Your task to perform on an android device: turn on notifications settings in the gmail app Image 0: 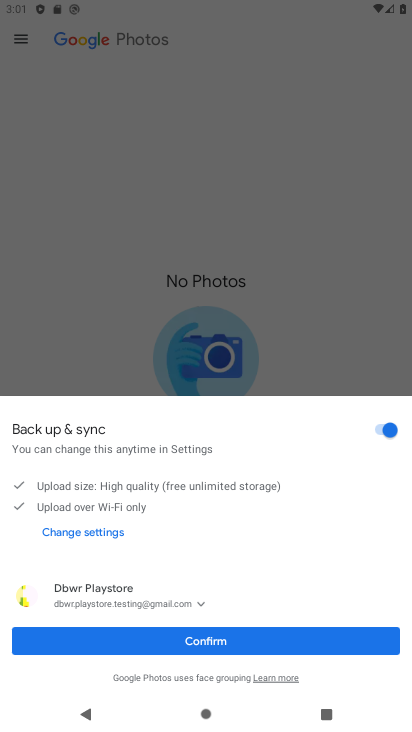
Step 0: drag from (177, 541) to (183, 253)
Your task to perform on an android device: turn on notifications settings in the gmail app Image 1: 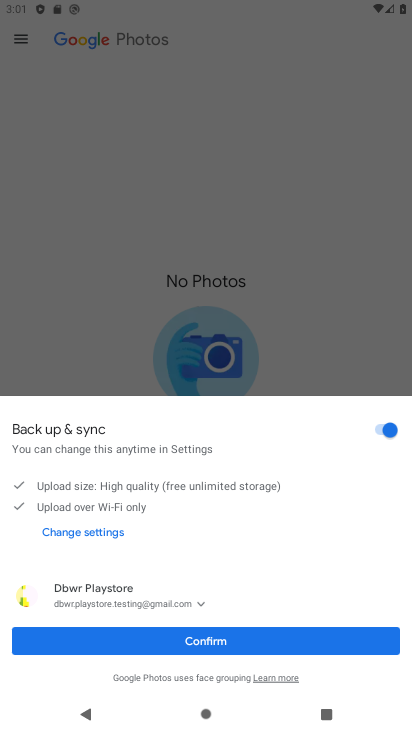
Step 1: click (211, 646)
Your task to perform on an android device: turn on notifications settings in the gmail app Image 2: 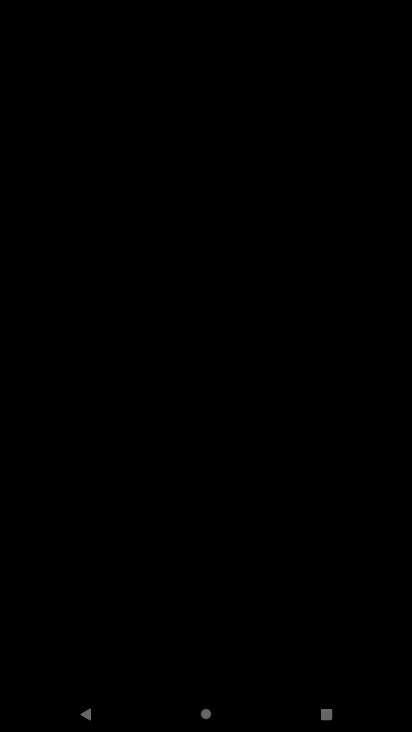
Step 2: click (200, 643)
Your task to perform on an android device: turn on notifications settings in the gmail app Image 3: 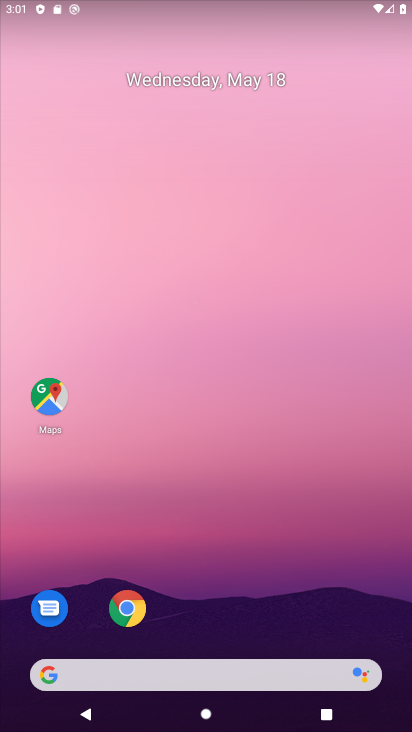
Step 3: drag from (206, 658) to (232, 297)
Your task to perform on an android device: turn on notifications settings in the gmail app Image 4: 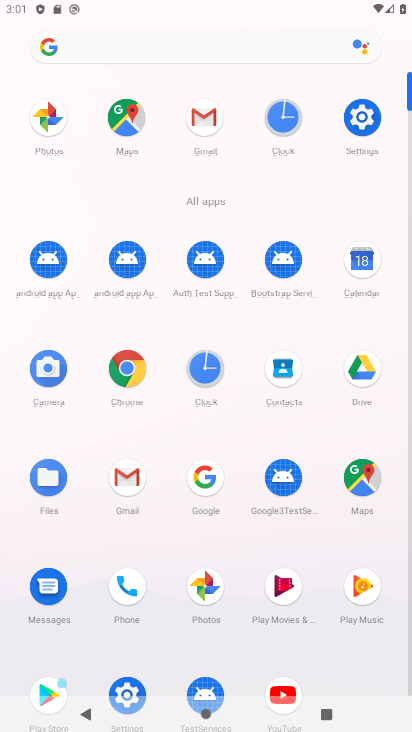
Step 4: click (209, 127)
Your task to perform on an android device: turn on notifications settings in the gmail app Image 5: 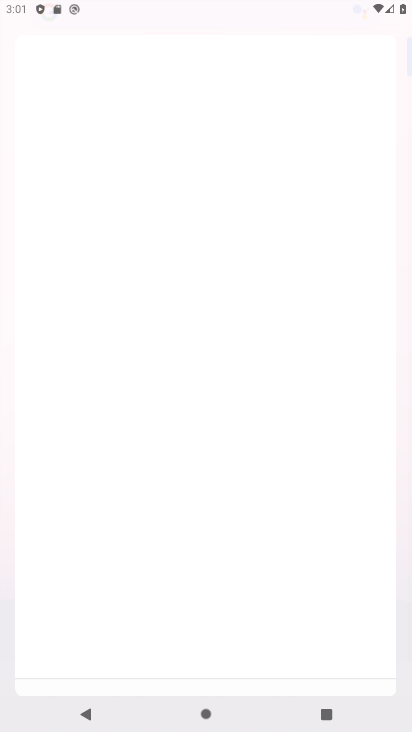
Step 5: click (203, 121)
Your task to perform on an android device: turn on notifications settings in the gmail app Image 6: 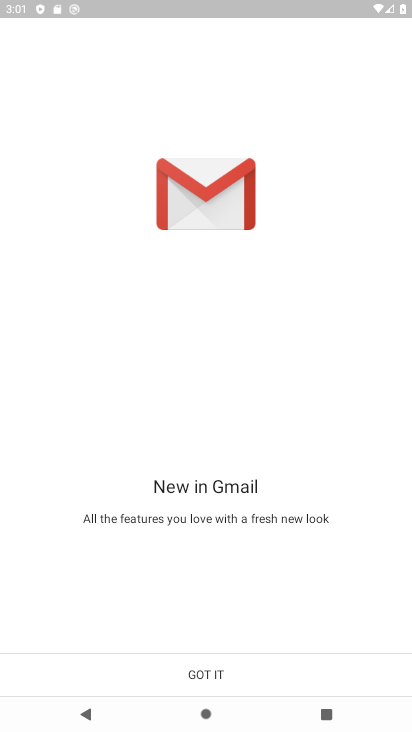
Step 6: click (215, 675)
Your task to perform on an android device: turn on notifications settings in the gmail app Image 7: 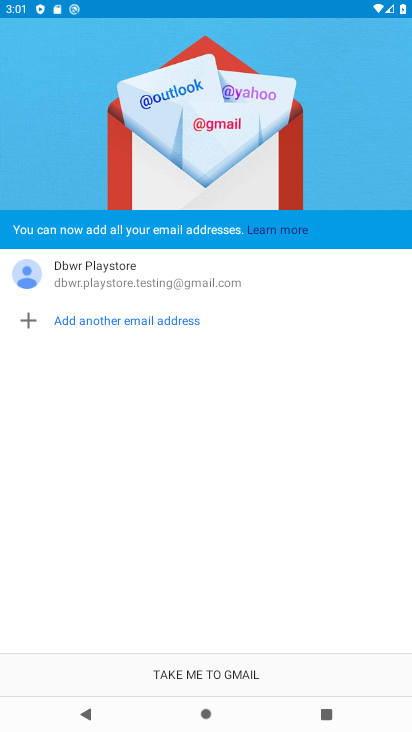
Step 7: click (170, 681)
Your task to perform on an android device: turn on notifications settings in the gmail app Image 8: 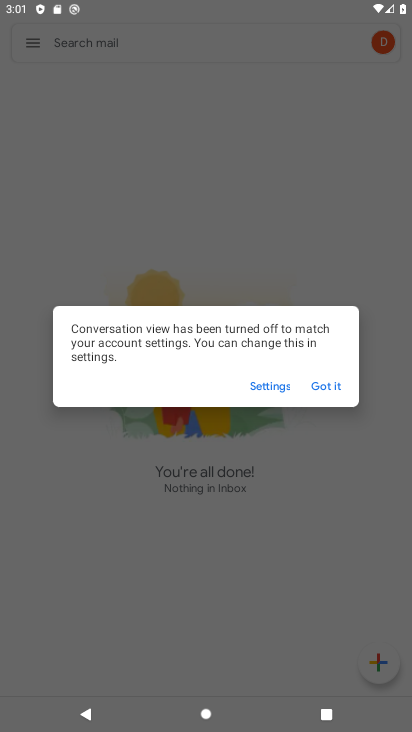
Step 8: click (336, 382)
Your task to perform on an android device: turn on notifications settings in the gmail app Image 9: 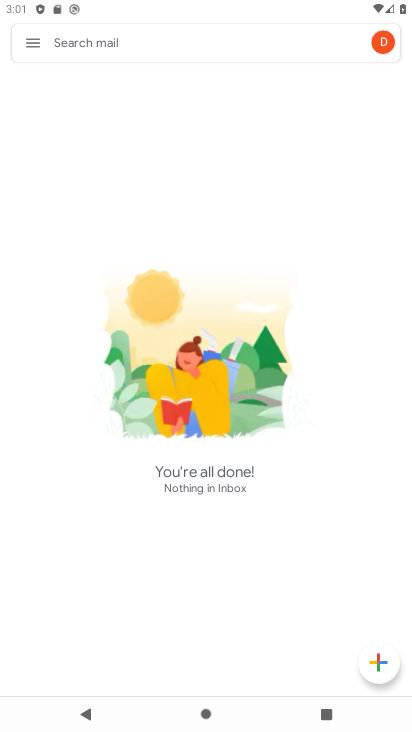
Step 9: click (37, 39)
Your task to perform on an android device: turn on notifications settings in the gmail app Image 10: 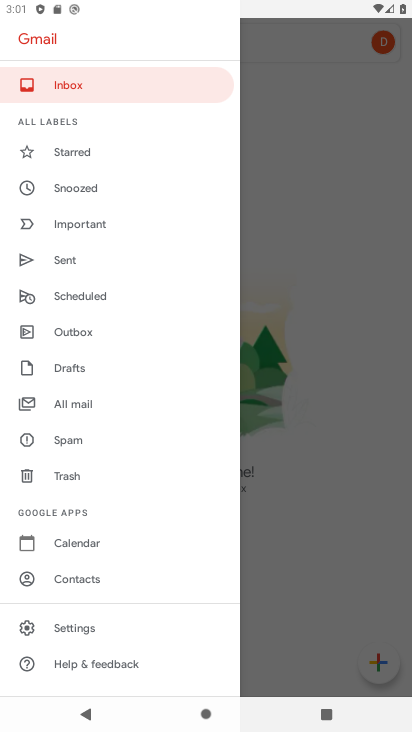
Step 10: click (78, 634)
Your task to perform on an android device: turn on notifications settings in the gmail app Image 11: 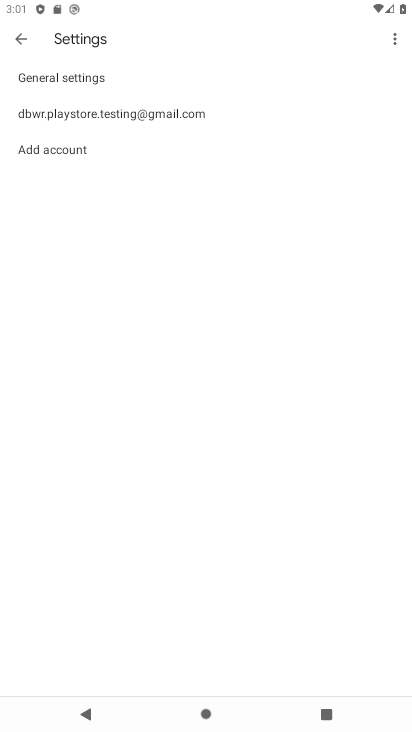
Step 11: click (20, 79)
Your task to perform on an android device: turn on notifications settings in the gmail app Image 12: 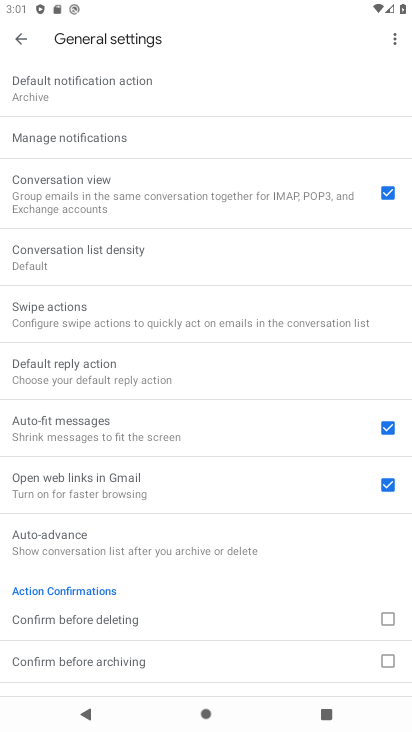
Step 12: click (67, 141)
Your task to perform on an android device: turn on notifications settings in the gmail app Image 13: 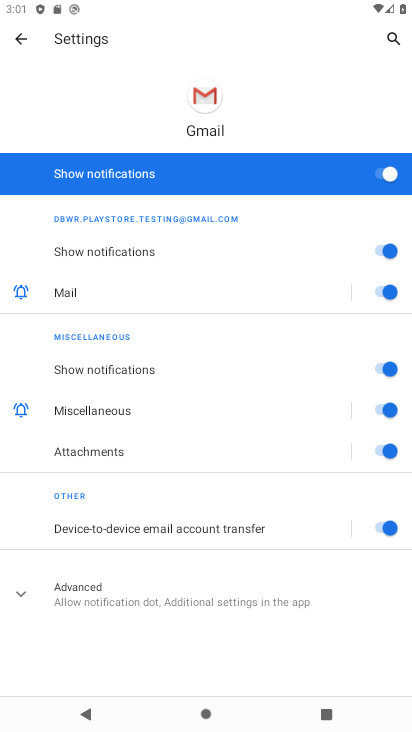
Step 13: task complete